Your task to perform on an android device: turn on the 24-hour format for clock Image 0: 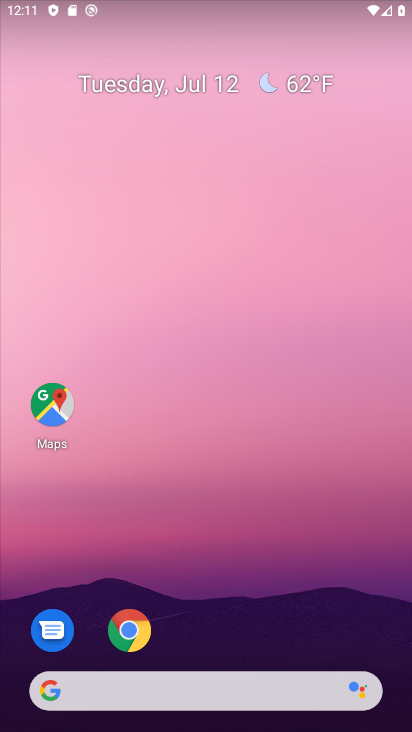
Step 0: drag from (221, 627) to (270, 107)
Your task to perform on an android device: turn on the 24-hour format for clock Image 1: 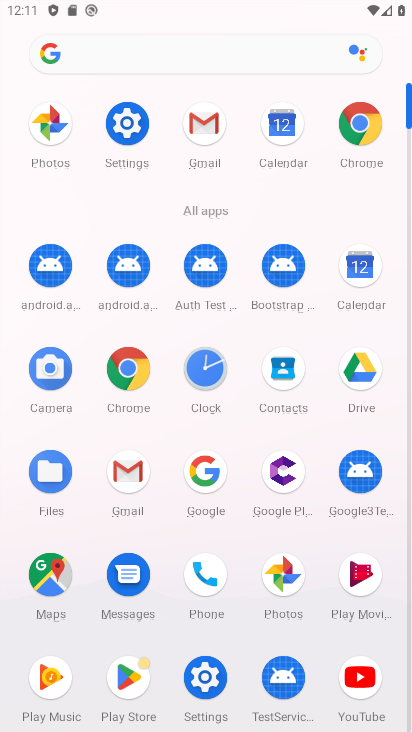
Step 1: click (207, 367)
Your task to perform on an android device: turn on the 24-hour format for clock Image 2: 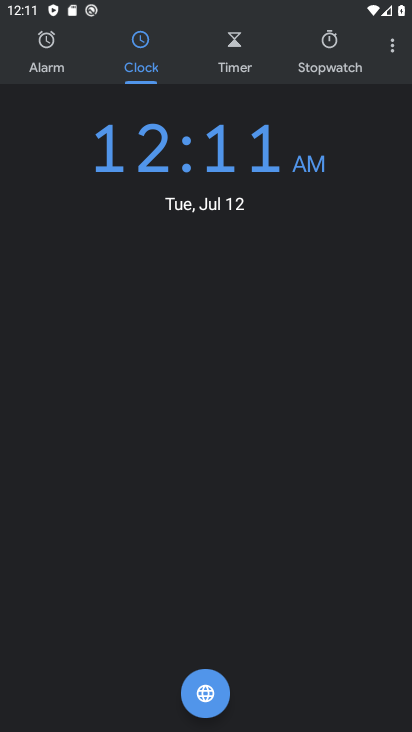
Step 2: click (385, 46)
Your task to perform on an android device: turn on the 24-hour format for clock Image 3: 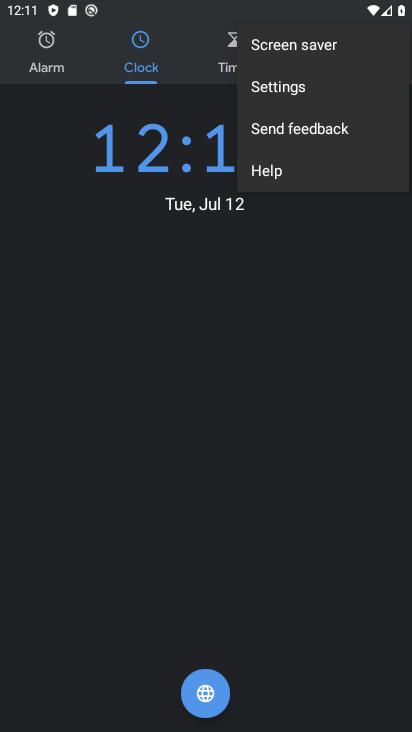
Step 3: click (281, 88)
Your task to perform on an android device: turn on the 24-hour format for clock Image 4: 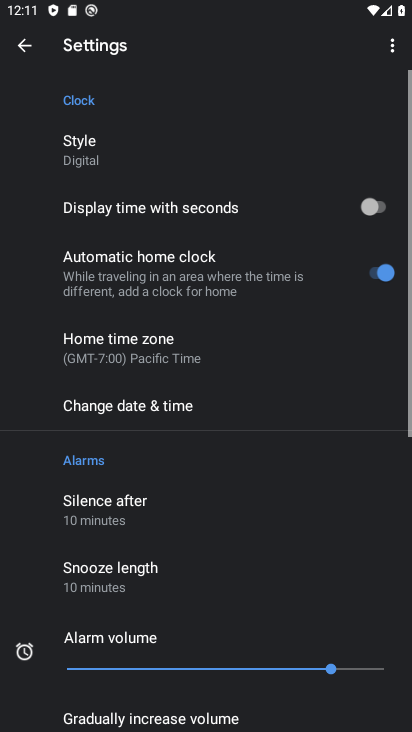
Step 4: click (131, 412)
Your task to perform on an android device: turn on the 24-hour format for clock Image 5: 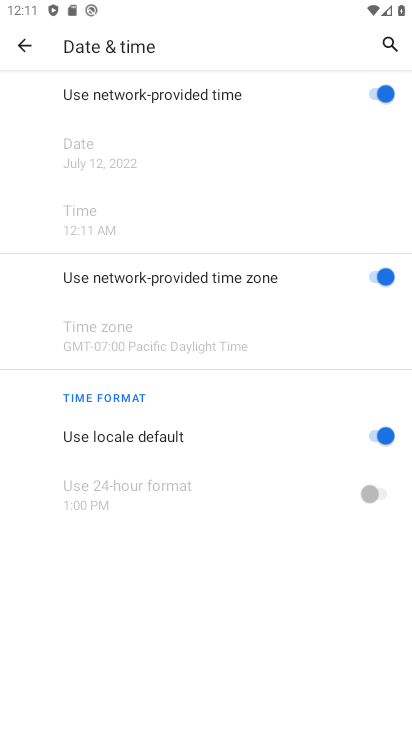
Step 5: click (374, 433)
Your task to perform on an android device: turn on the 24-hour format for clock Image 6: 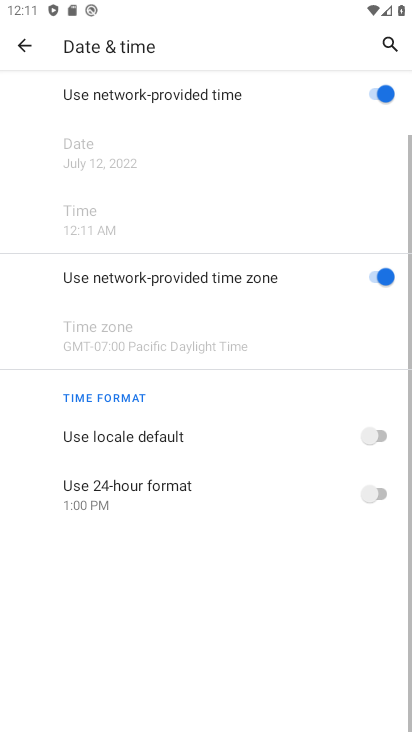
Step 6: click (373, 489)
Your task to perform on an android device: turn on the 24-hour format for clock Image 7: 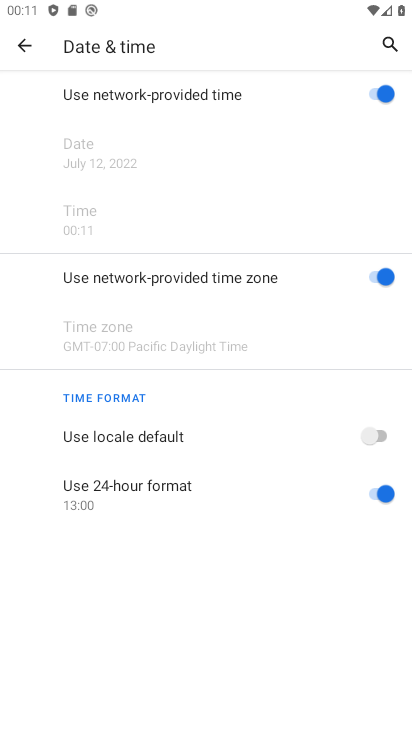
Step 7: task complete